Your task to perform on an android device: toggle improve location accuracy Image 0: 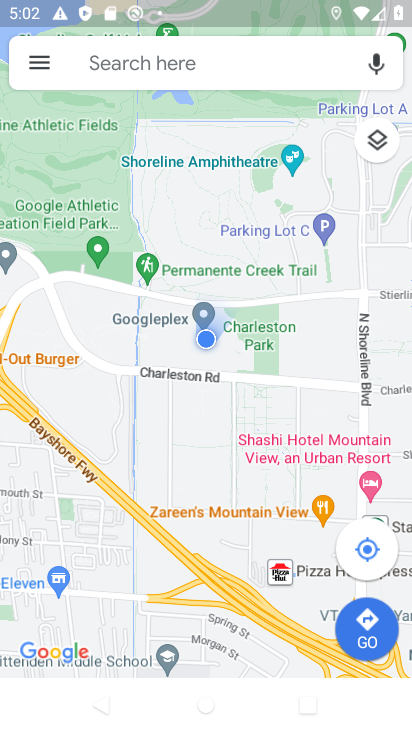
Step 0: press back button
Your task to perform on an android device: toggle improve location accuracy Image 1: 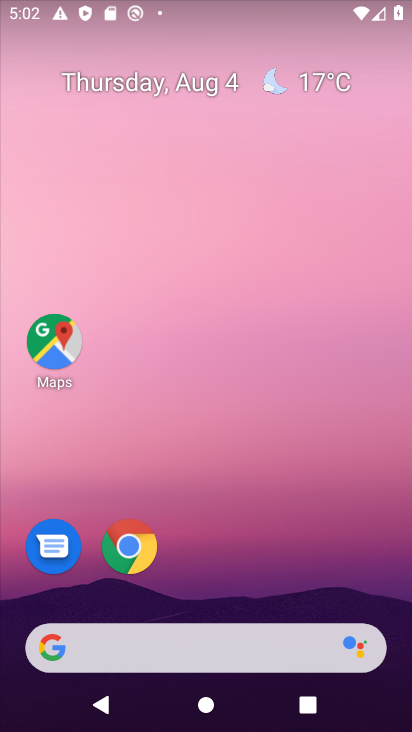
Step 1: drag from (198, 538) to (202, 98)
Your task to perform on an android device: toggle improve location accuracy Image 2: 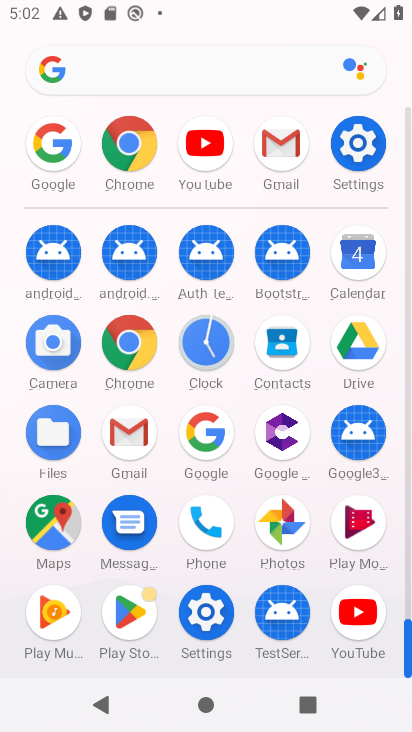
Step 2: click (352, 150)
Your task to perform on an android device: toggle improve location accuracy Image 3: 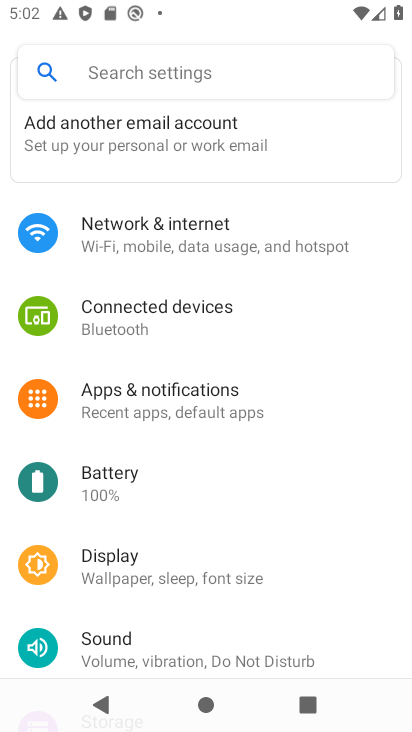
Step 3: drag from (162, 620) to (161, 285)
Your task to perform on an android device: toggle improve location accuracy Image 4: 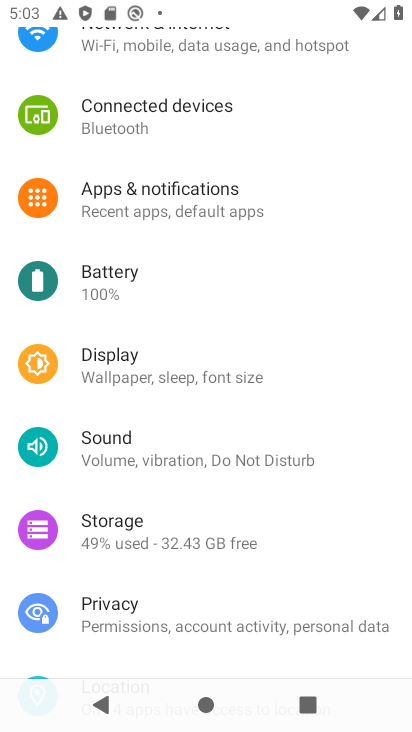
Step 4: drag from (187, 561) to (161, 226)
Your task to perform on an android device: toggle improve location accuracy Image 5: 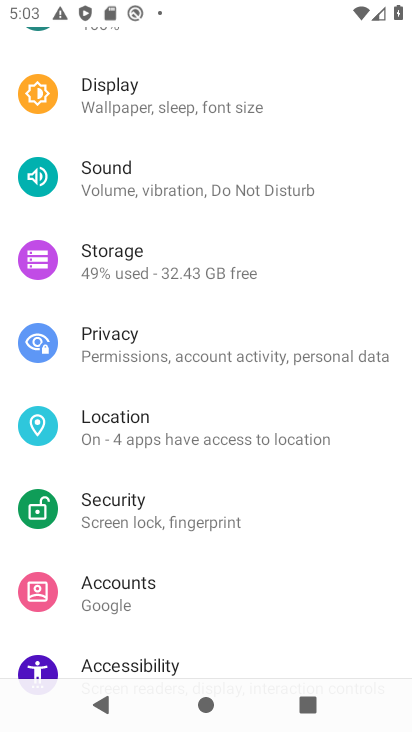
Step 5: click (158, 619)
Your task to perform on an android device: toggle improve location accuracy Image 6: 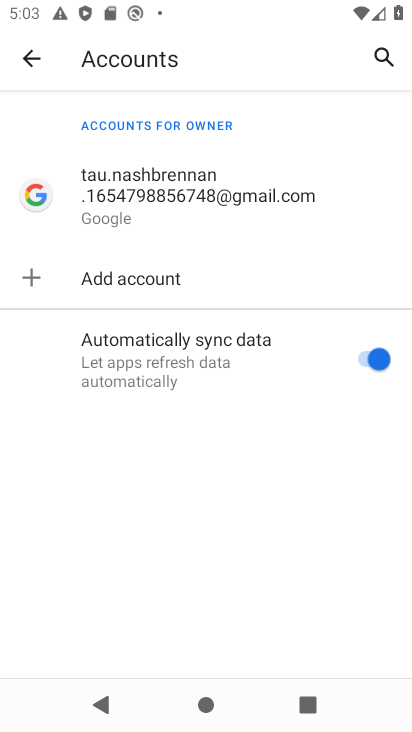
Step 6: click (40, 59)
Your task to perform on an android device: toggle improve location accuracy Image 7: 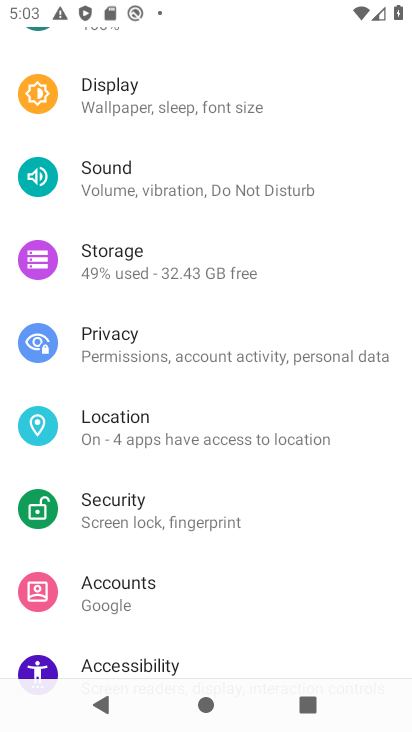
Step 7: drag from (170, 486) to (168, 239)
Your task to perform on an android device: toggle improve location accuracy Image 8: 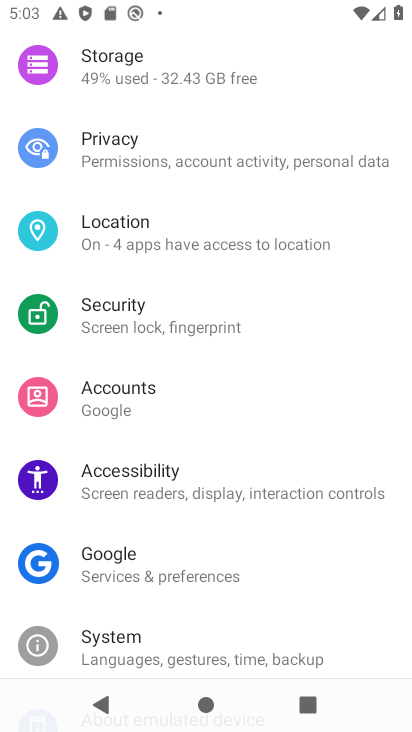
Step 8: click (143, 248)
Your task to perform on an android device: toggle improve location accuracy Image 9: 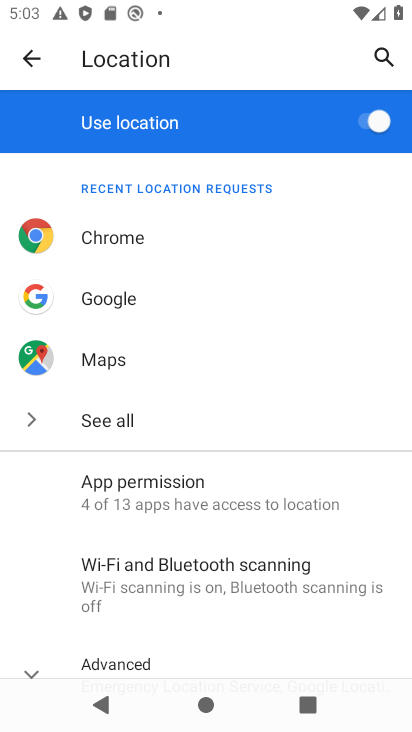
Step 9: click (109, 667)
Your task to perform on an android device: toggle improve location accuracy Image 10: 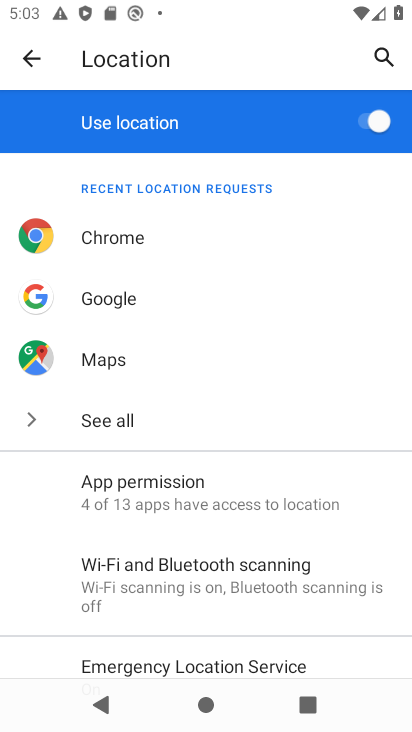
Step 10: drag from (180, 621) to (164, 202)
Your task to perform on an android device: toggle improve location accuracy Image 11: 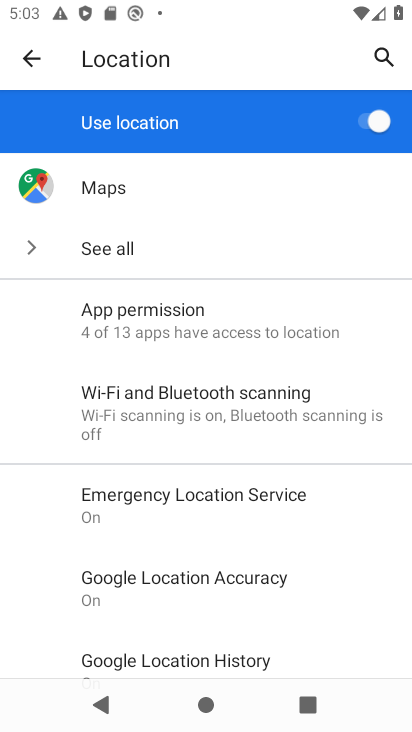
Step 11: click (218, 579)
Your task to perform on an android device: toggle improve location accuracy Image 12: 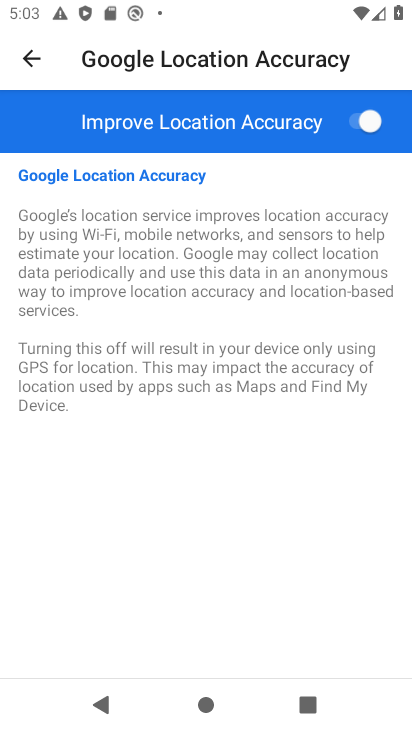
Step 12: click (351, 130)
Your task to perform on an android device: toggle improve location accuracy Image 13: 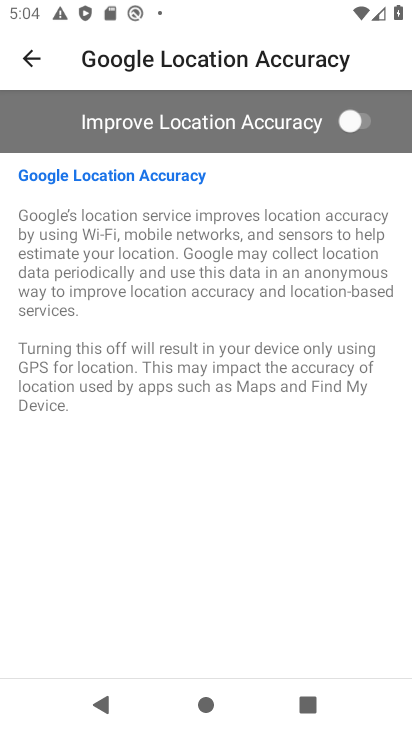
Step 13: task complete